Your task to perform on an android device: Is it going to rain this weekend? Image 0: 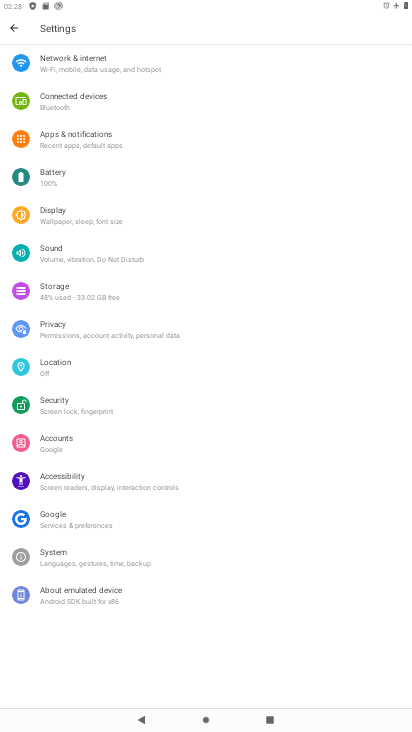
Step 0: press home button
Your task to perform on an android device: Is it going to rain this weekend? Image 1: 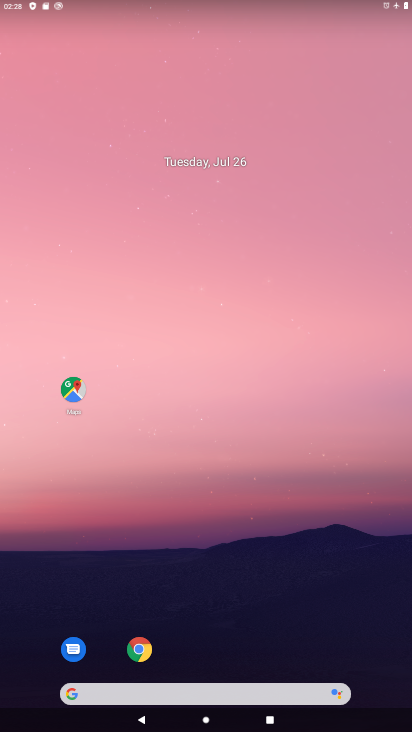
Step 1: click (141, 650)
Your task to perform on an android device: Is it going to rain this weekend? Image 2: 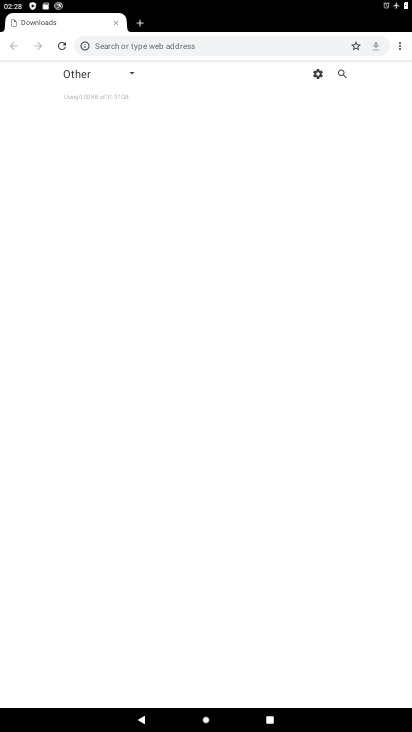
Step 2: click (237, 43)
Your task to perform on an android device: Is it going to rain this weekend? Image 3: 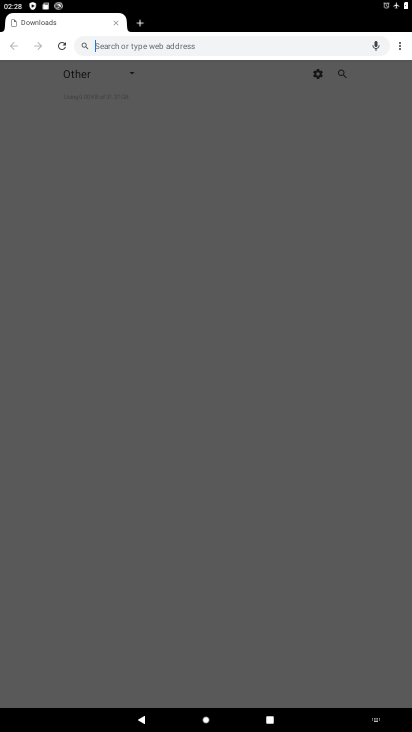
Step 3: type "Is it going to rain this weekend?"
Your task to perform on an android device: Is it going to rain this weekend? Image 4: 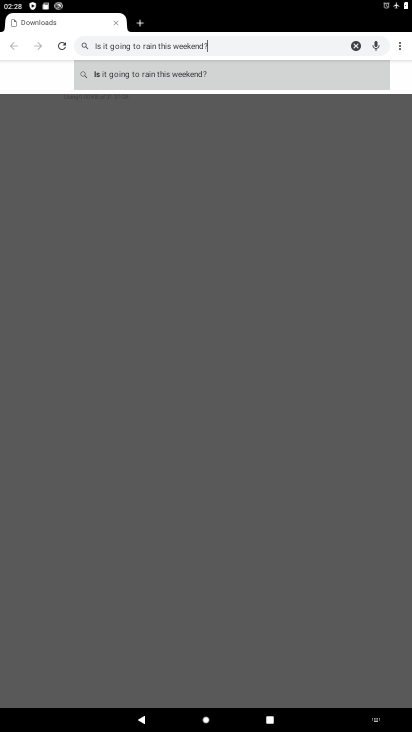
Step 4: type ""
Your task to perform on an android device: Is it going to rain this weekend? Image 5: 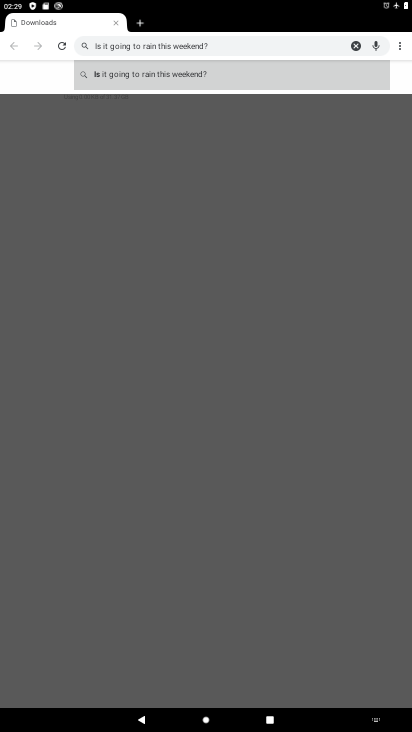
Step 5: click (204, 75)
Your task to perform on an android device: Is it going to rain this weekend? Image 6: 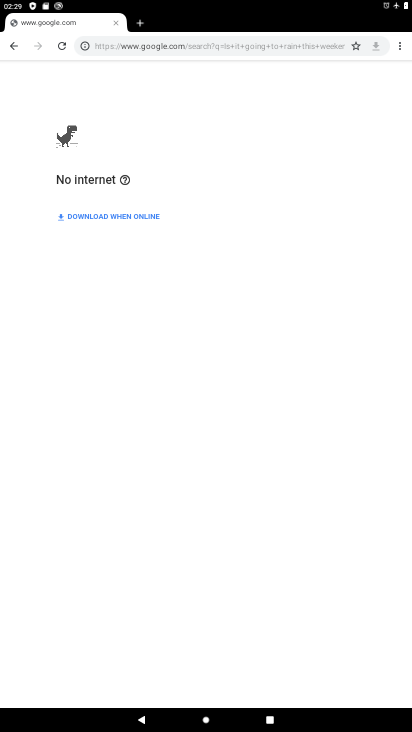
Step 6: task complete